Your task to perform on an android device: Open Yahoo.com Image 0: 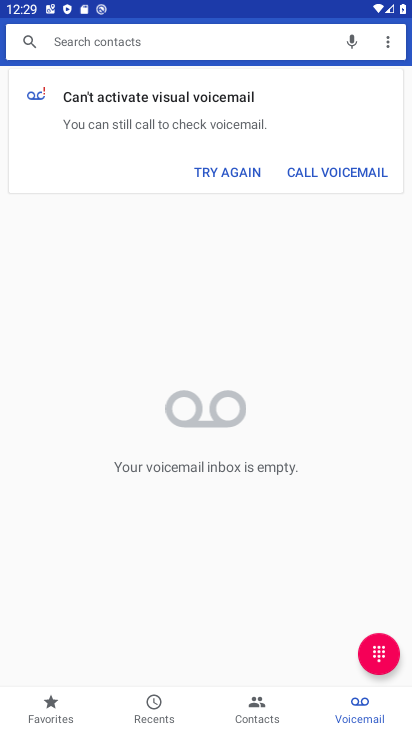
Step 0: press home button
Your task to perform on an android device: Open Yahoo.com Image 1: 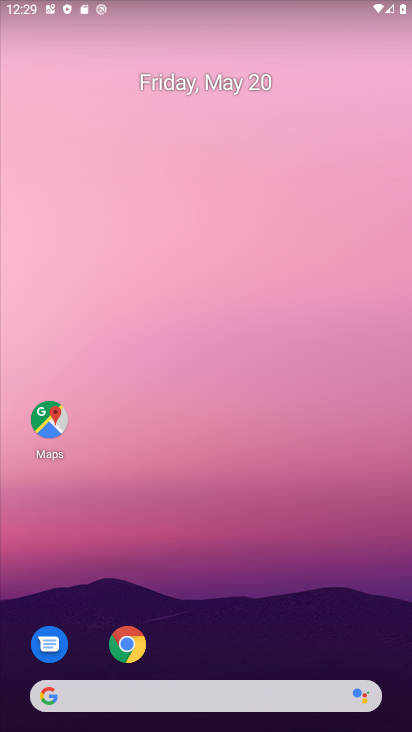
Step 1: click (131, 649)
Your task to perform on an android device: Open Yahoo.com Image 2: 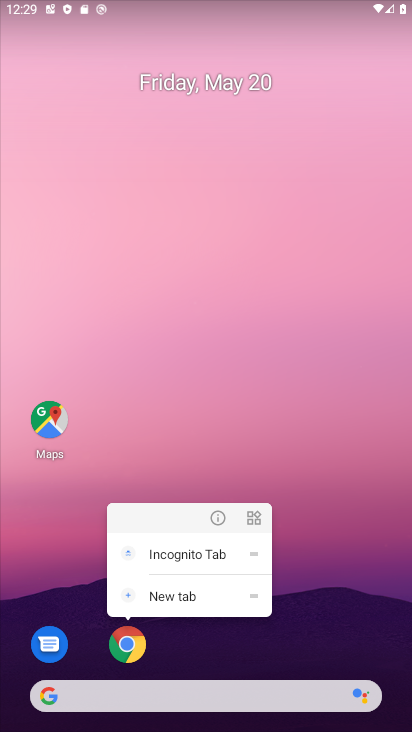
Step 2: click (132, 647)
Your task to perform on an android device: Open Yahoo.com Image 3: 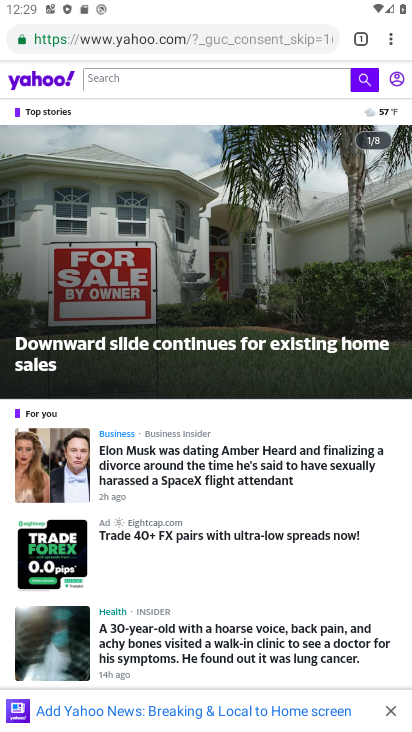
Step 3: task complete